Your task to perform on an android device: delete a single message in the gmail app Image 0: 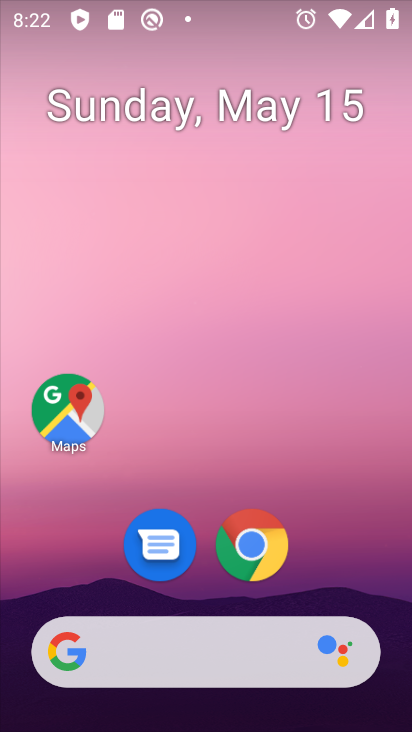
Step 0: drag from (376, 568) to (205, 76)
Your task to perform on an android device: delete a single message in the gmail app Image 1: 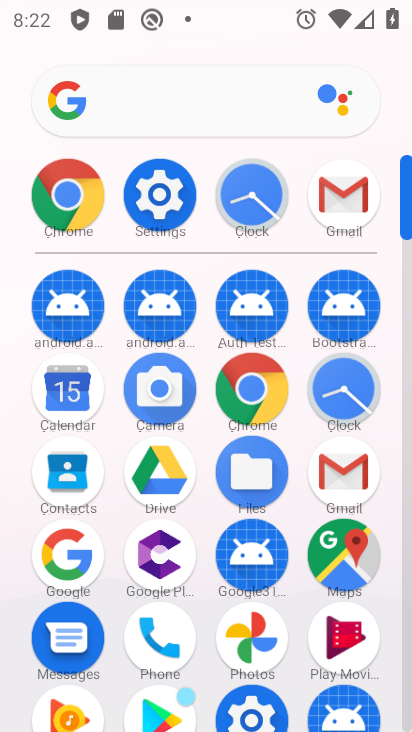
Step 1: click (349, 467)
Your task to perform on an android device: delete a single message in the gmail app Image 2: 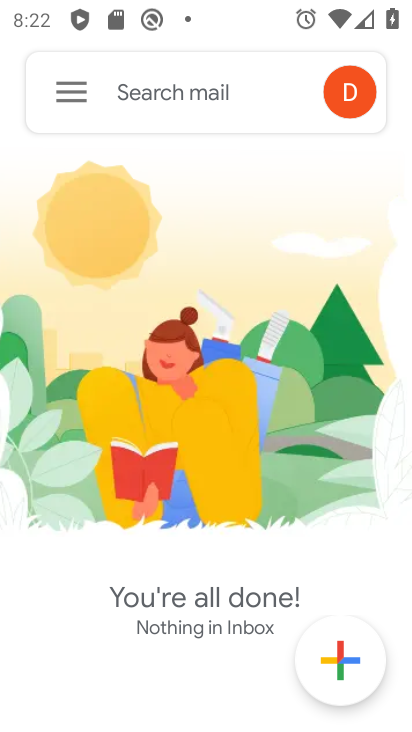
Step 2: click (84, 87)
Your task to perform on an android device: delete a single message in the gmail app Image 3: 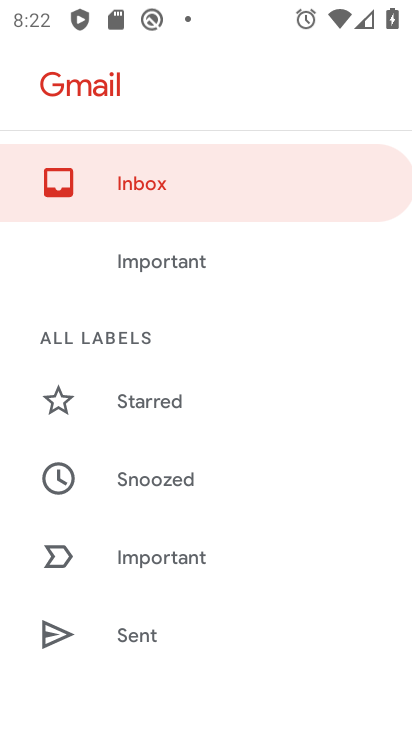
Step 3: click (143, 177)
Your task to perform on an android device: delete a single message in the gmail app Image 4: 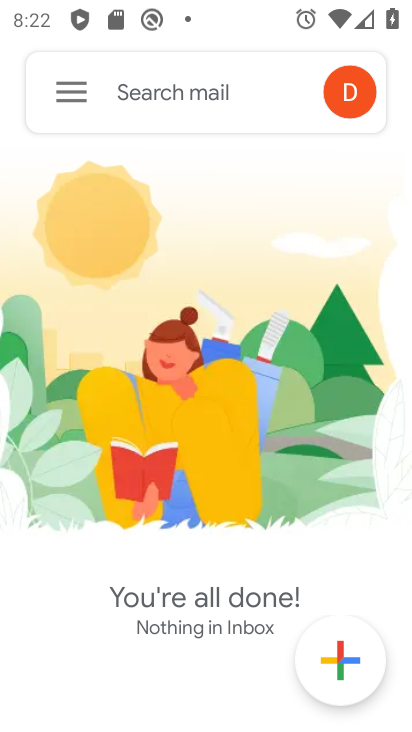
Step 4: task complete